Your task to perform on an android device: Open wifi settings Image 0: 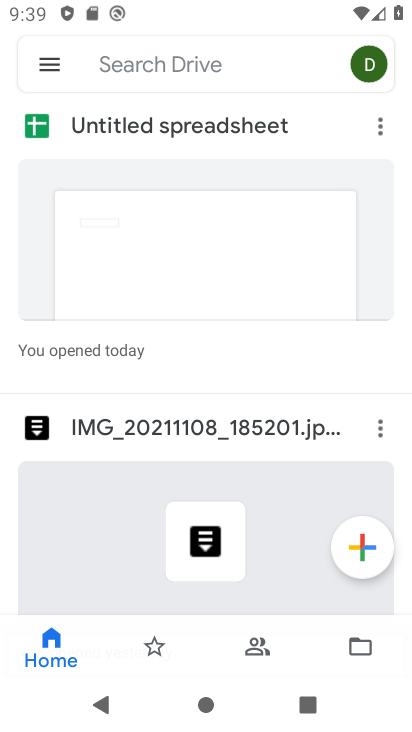
Step 0: press home button
Your task to perform on an android device: Open wifi settings Image 1: 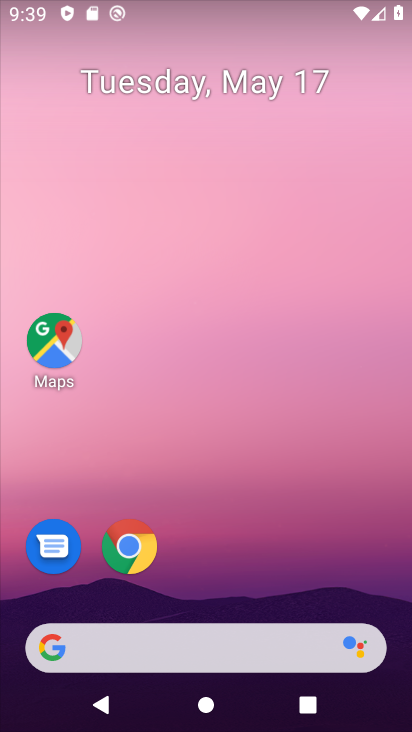
Step 1: drag from (225, 564) to (215, 246)
Your task to perform on an android device: Open wifi settings Image 2: 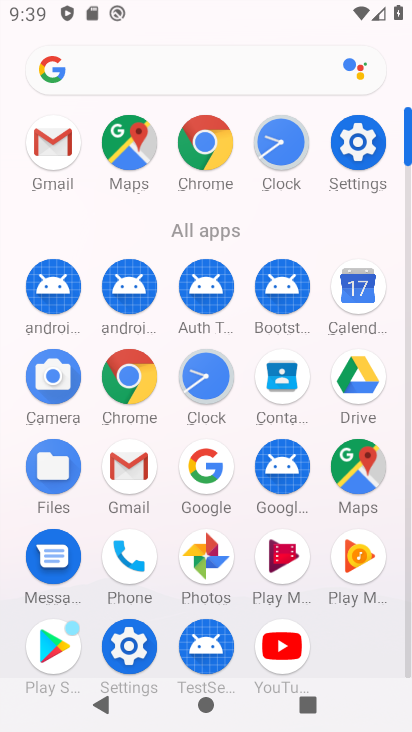
Step 2: click (363, 140)
Your task to perform on an android device: Open wifi settings Image 3: 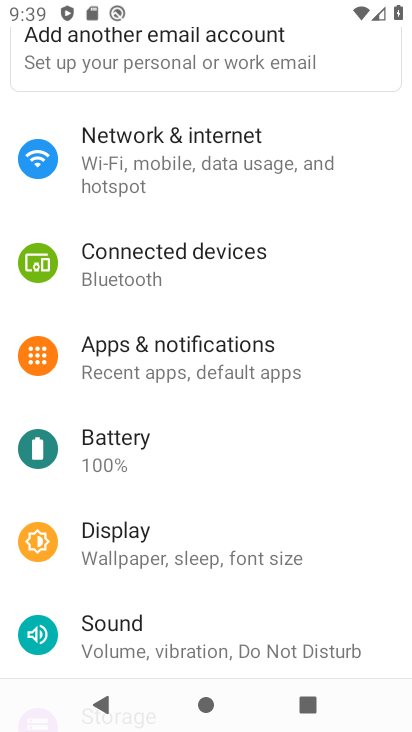
Step 3: drag from (188, 146) to (184, 522)
Your task to perform on an android device: Open wifi settings Image 4: 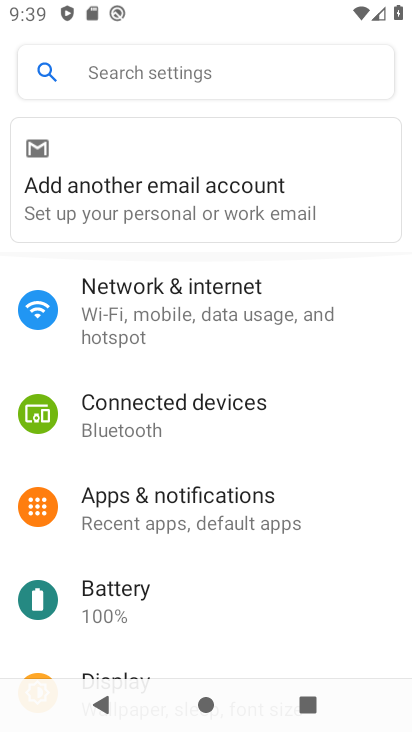
Step 4: click (165, 297)
Your task to perform on an android device: Open wifi settings Image 5: 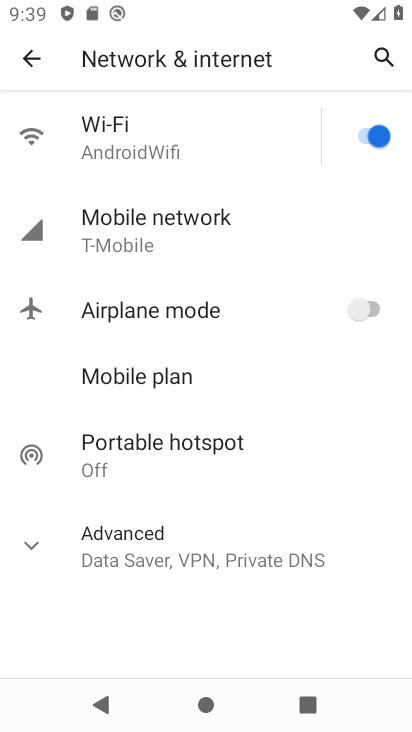
Step 5: click (242, 124)
Your task to perform on an android device: Open wifi settings Image 6: 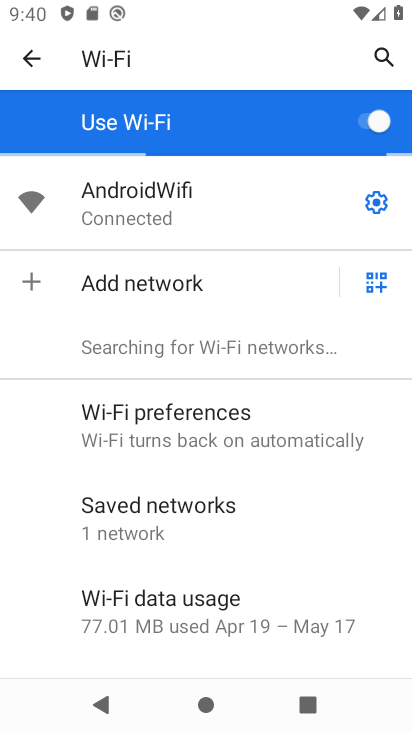
Step 6: task complete